Your task to perform on an android device: Search for the best 4K TV Image 0: 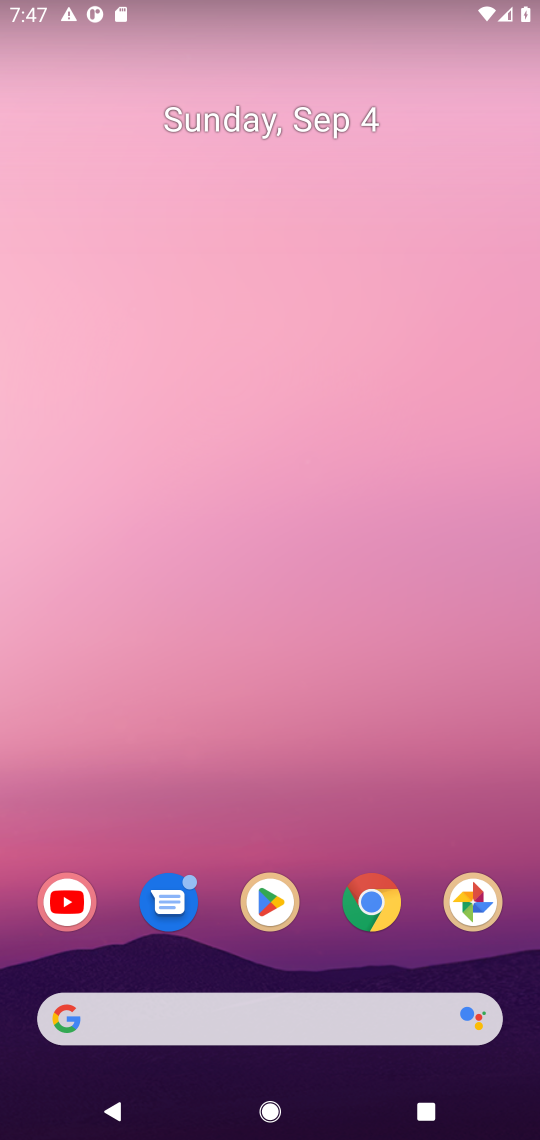
Step 0: click (83, 914)
Your task to perform on an android device: Search for the best 4K TV Image 1: 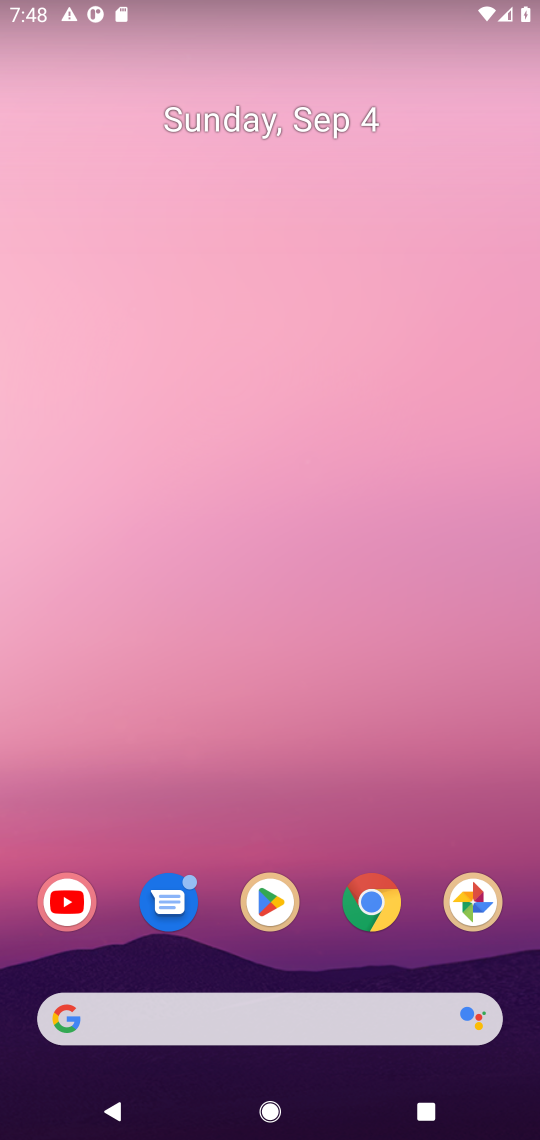
Step 1: click (383, 926)
Your task to perform on an android device: Search for the best 4K TV Image 2: 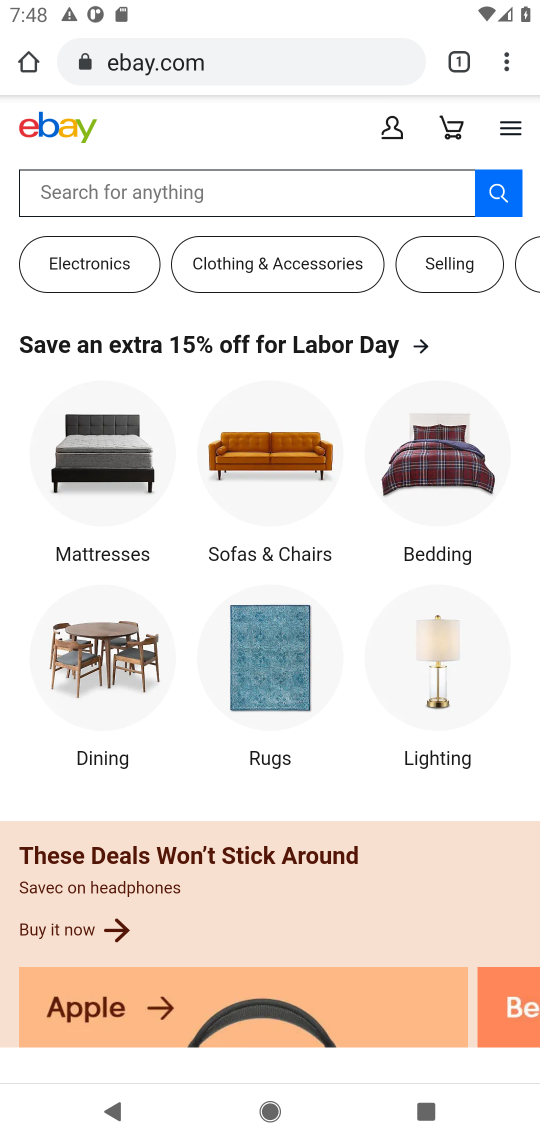
Step 2: task complete